Your task to perform on an android device: change notification settings in the gmail app Image 0: 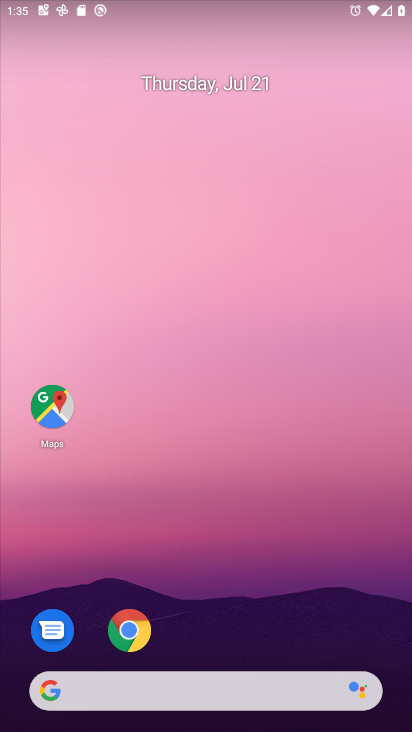
Step 0: drag from (193, 610) to (233, 125)
Your task to perform on an android device: change notification settings in the gmail app Image 1: 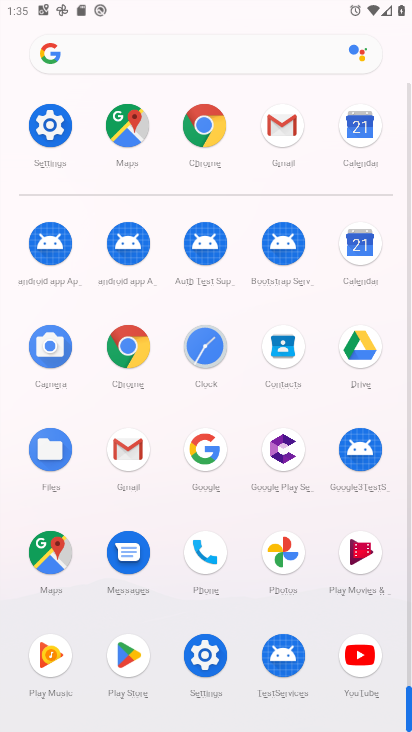
Step 1: click (122, 446)
Your task to perform on an android device: change notification settings in the gmail app Image 2: 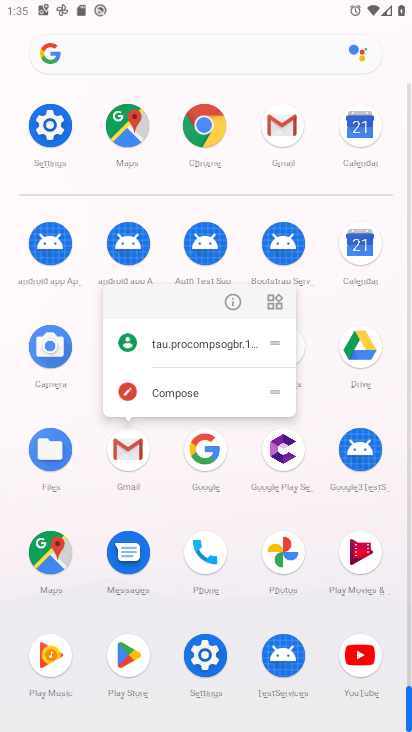
Step 2: click (233, 304)
Your task to perform on an android device: change notification settings in the gmail app Image 3: 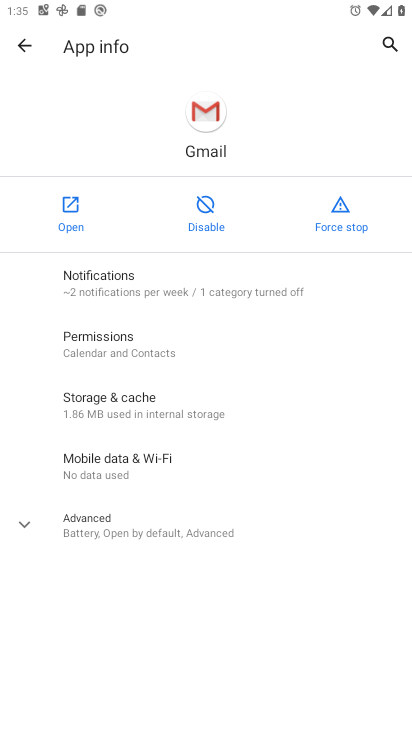
Step 3: click (69, 215)
Your task to perform on an android device: change notification settings in the gmail app Image 4: 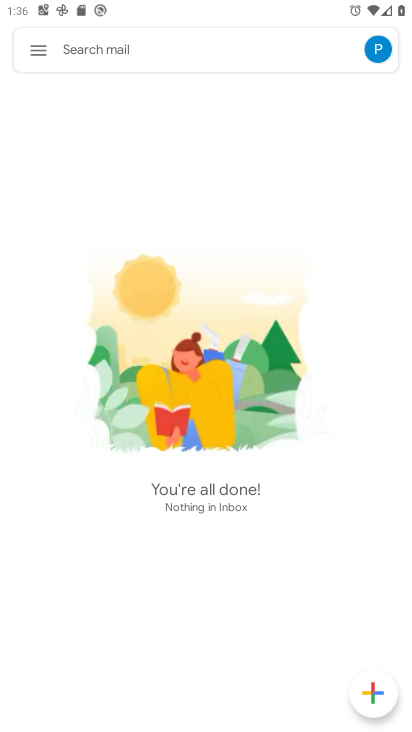
Step 4: click (31, 61)
Your task to perform on an android device: change notification settings in the gmail app Image 5: 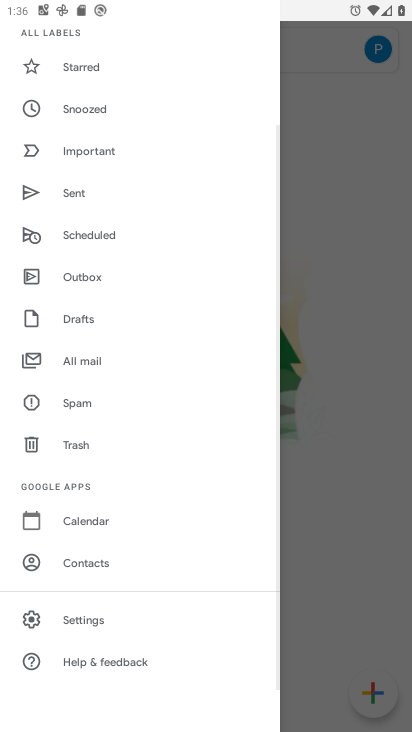
Step 5: click (78, 611)
Your task to perform on an android device: change notification settings in the gmail app Image 6: 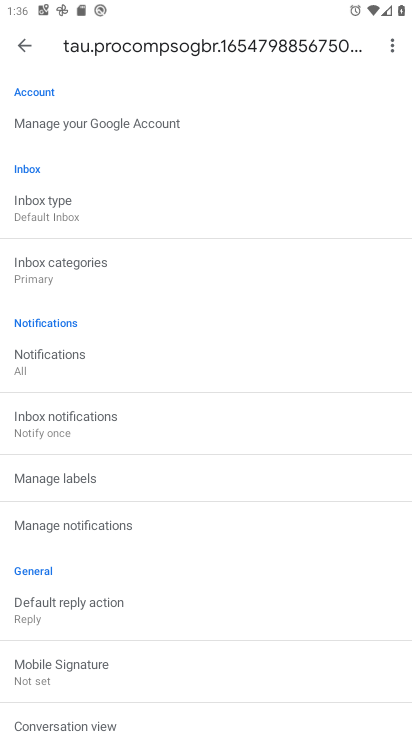
Step 6: click (84, 530)
Your task to perform on an android device: change notification settings in the gmail app Image 7: 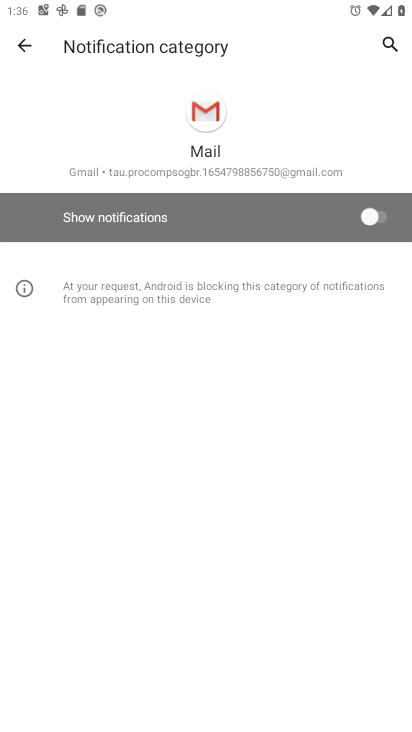
Step 7: click (214, 224)
Your task to perform on an android device: change notification settings in the gmail app Image 8: 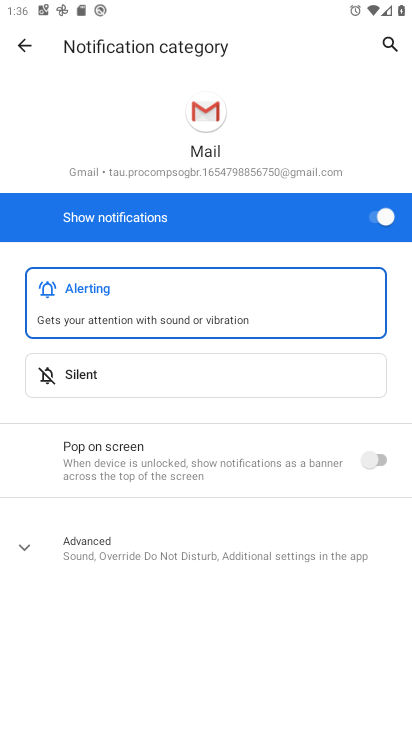
Step 8: task complete